Your task to perform on an android device: set an alarm Image 0: 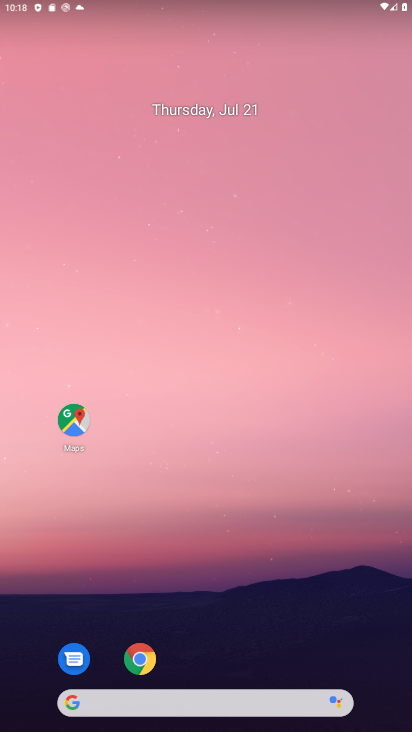
Step 0: drag from (274, 638) to (393, 37)
Your task to perform on an android device: set an alarm Image 1: 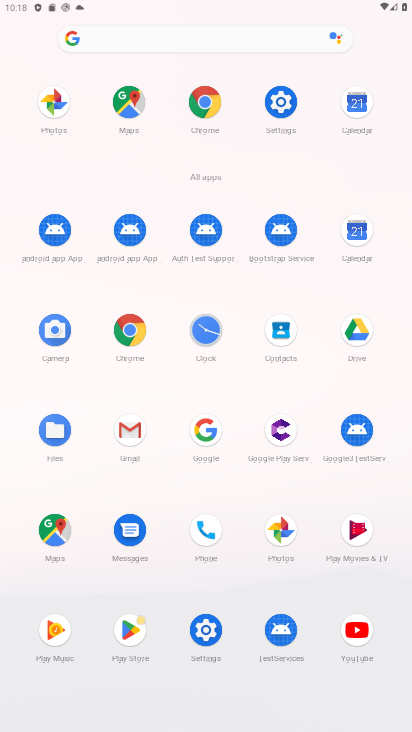
Step 1: click (202, 349)
Your task to perform on an android device: set an alarm Image 2: 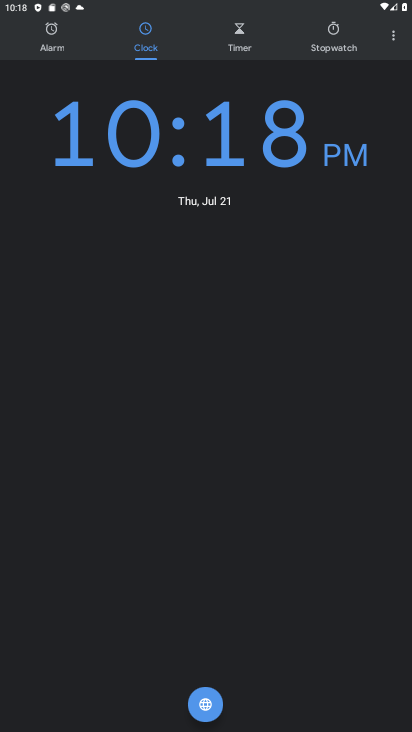
Step 2: click (39, 44)
Your task to perform on an android device: set an alarm Image 3: 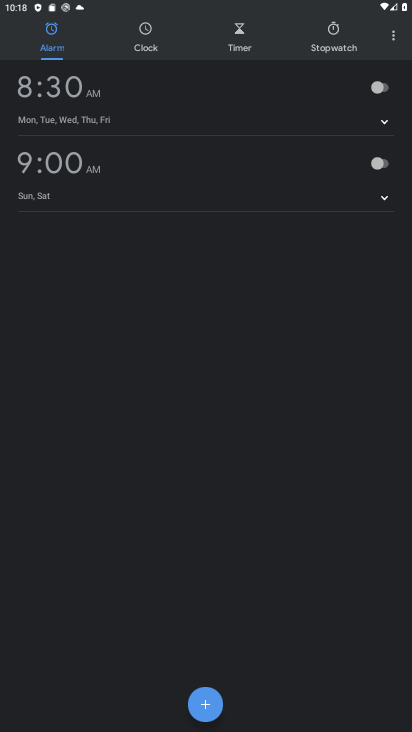
Step 3: click (246, 96)
Your task to perform on an android device: set an alarm Image 4: 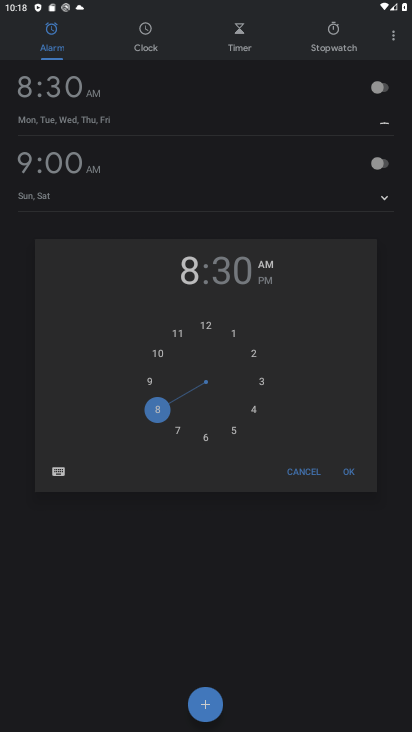
Step 4: task complete